Your task to perform on an android device: change alarm snooze length Image 0: 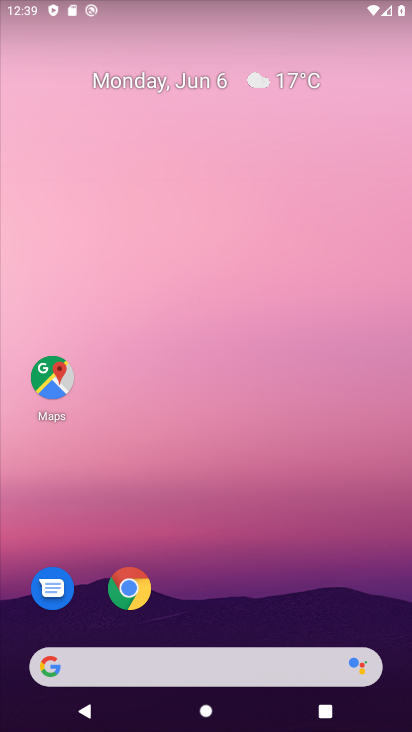
Step 0: drag from (163, 725) to (173, 40)
Your task to perform on an android device: change alarm snooze length Image 1: 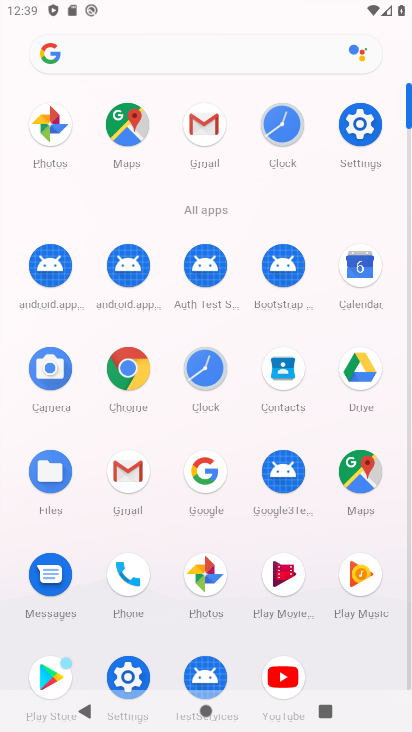
Step 1: click (204, 374)
Your task to perform on an android device: change alarm snooze length Image 2: 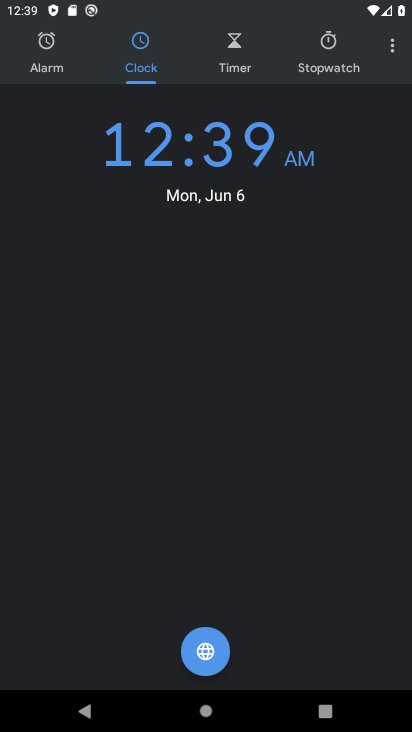
Step 2: click (389, 43)
Your task to perform on an android device: change alarm snooze length Image 3: 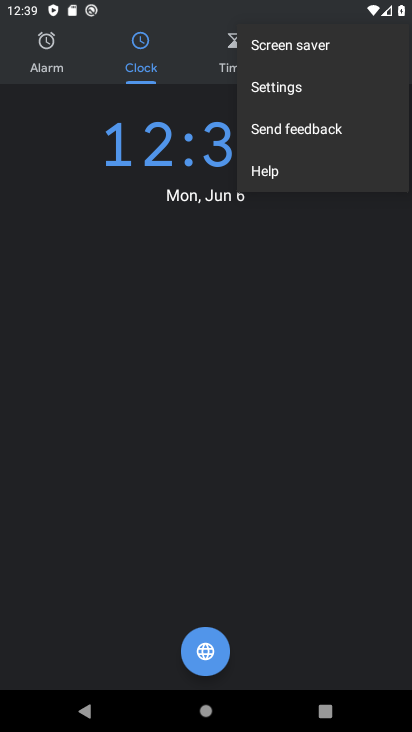
Step 3: click (283, 93)
Your task to perform on an android device: change alarm snooze length Image 4: 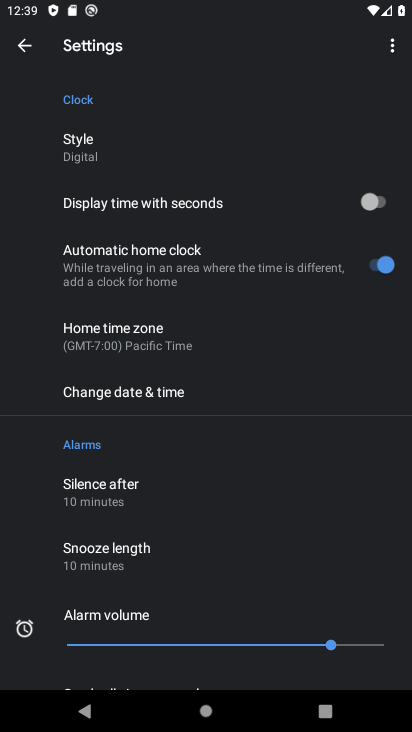
Step 4: click (128, 546)
Your task to perform on an android device: change alarm snooze length Image 5: 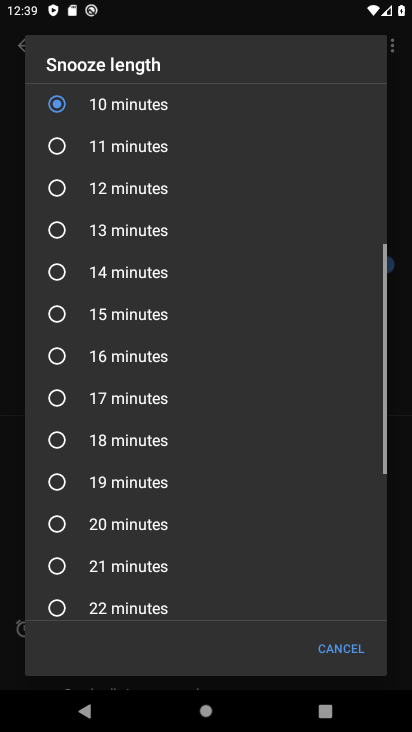
Step 5: click (118, 183)
Your task to perform on an android device: change alarm snooze length Image 6: 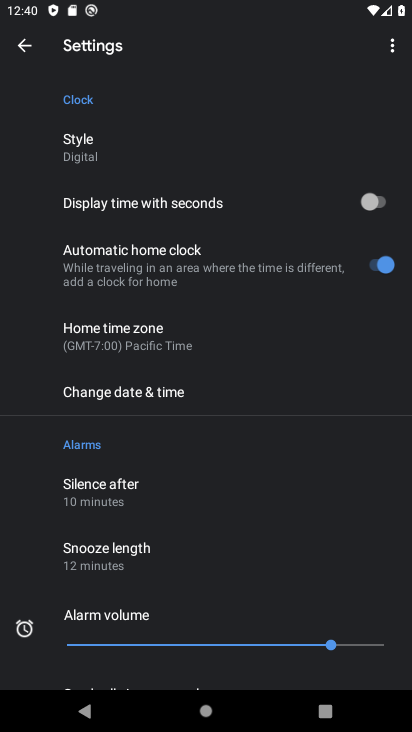
Step 6: task complete